Your task to perform on an android device: toggle translation in the chrome app Image 0: 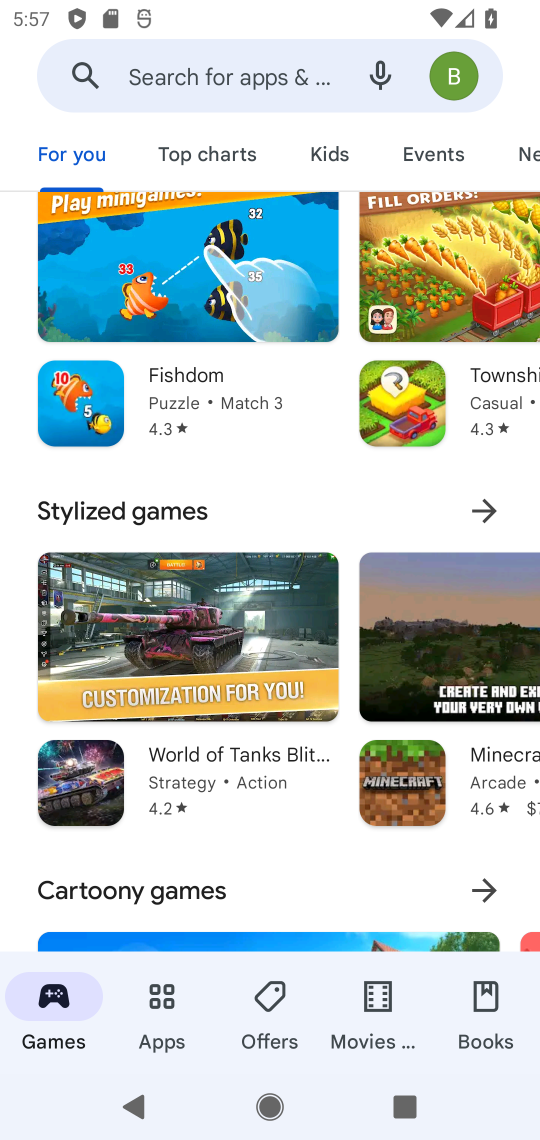
Step 0: press home button
Your task to perform on an android device: toggle translation in the chrome app Image 1: 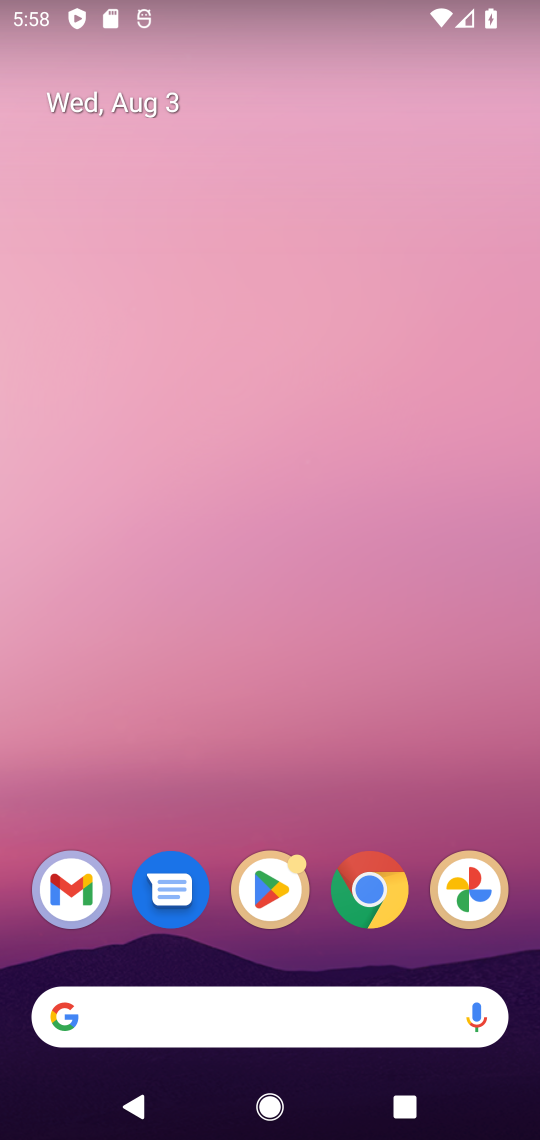
Step 1: click (388, 903)
Your task to perform on an android device: toggle translation in the chrome app Image 2: 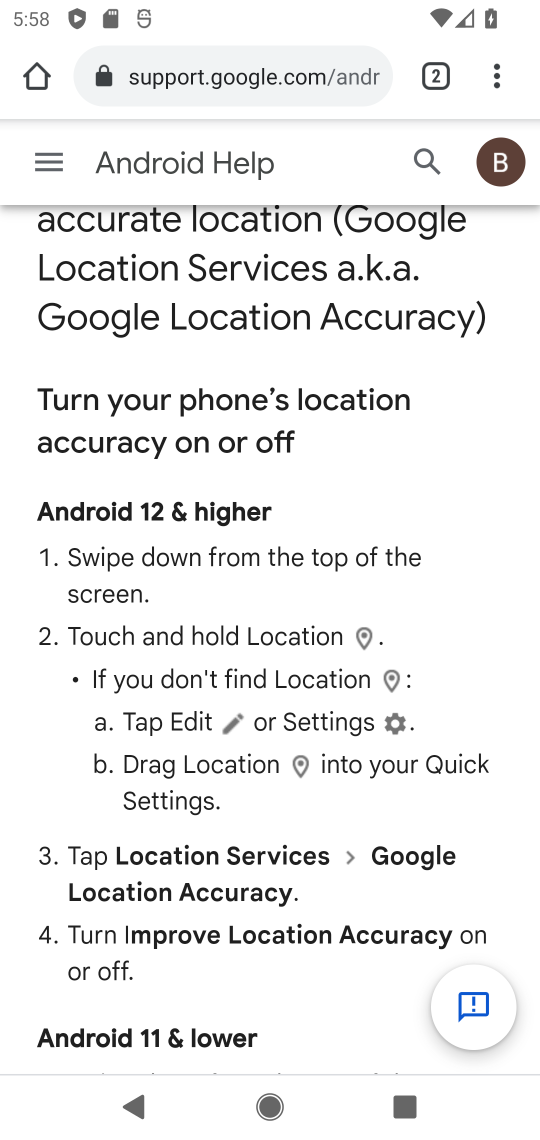
Step 2: click (500, 73)
Your task to perform on an android device: toggle translation in the chrome app Image 3: 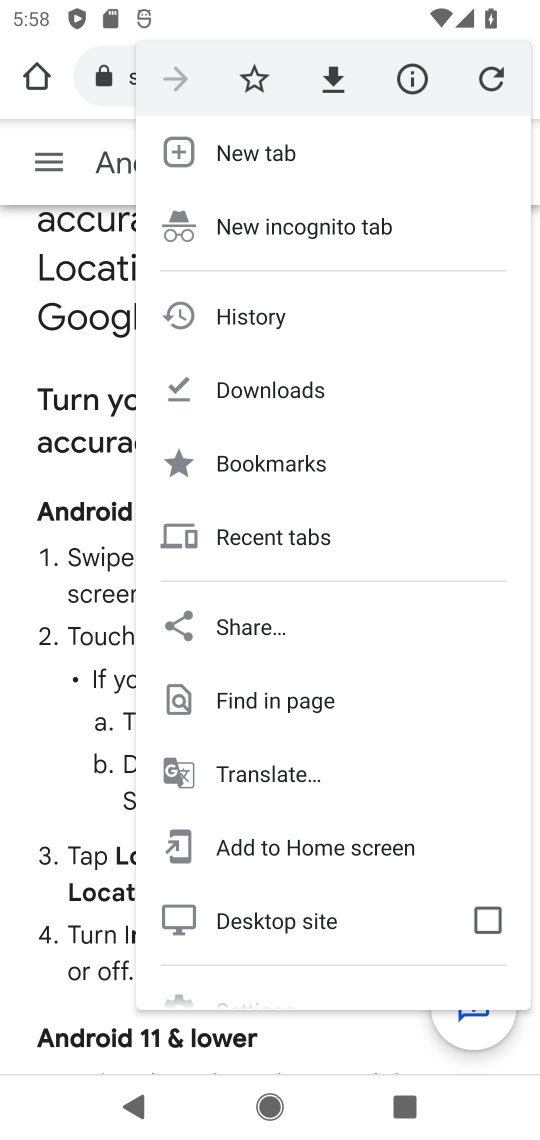
Step 3: drag from (368, 740) to (384, 376)
Your task to perform on an android device: toggle translation in the chrome app Image 4: 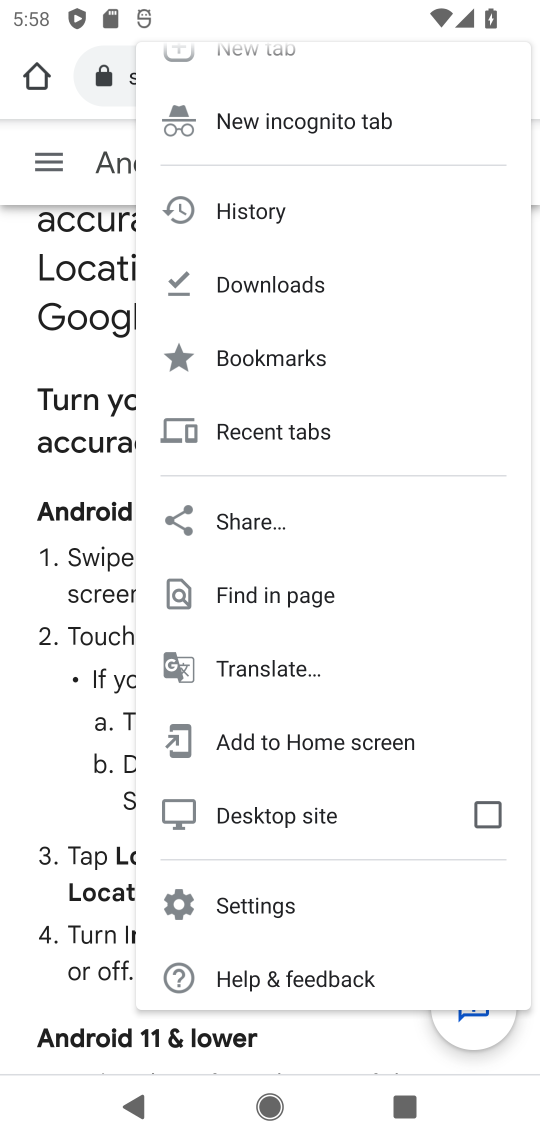
Step 4: click (249, 900)
Your task to perform on an android device: toggle translation in the chrome app Image 5: 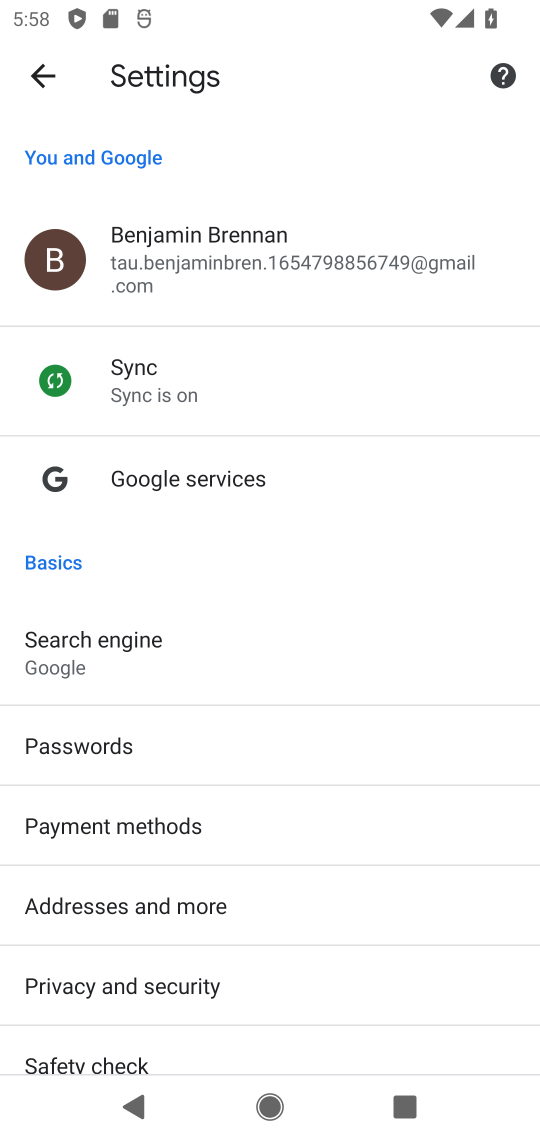
Step 5: drag from (376, 606) to (392, 178)
Your task to perform on an android device: toggle translation in the chrome app Image 6: 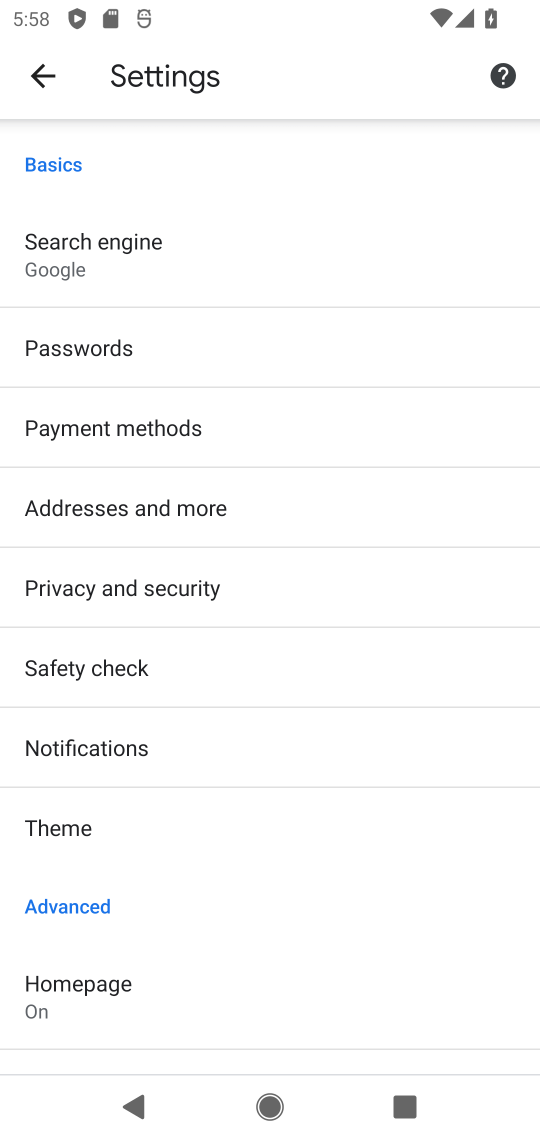
Step 6: drag from (269, 930) to (347, 265)
Your task to perform on an android device: toggle translation in the chrome app Image 7: 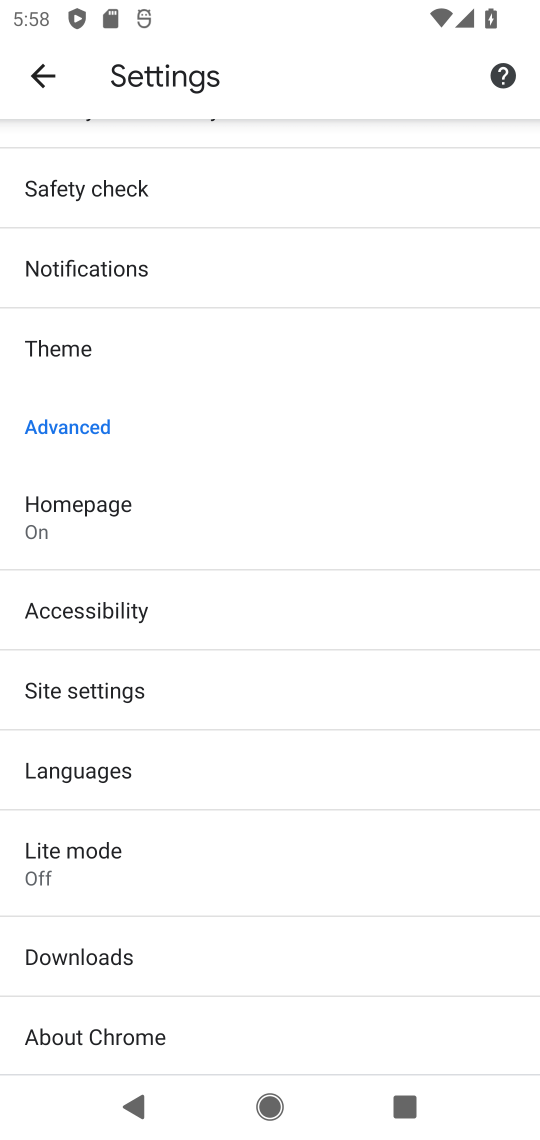
Step 7: click (96, 769)
Your task to perform on an android device: toggle translation in the chrome app Image 8: 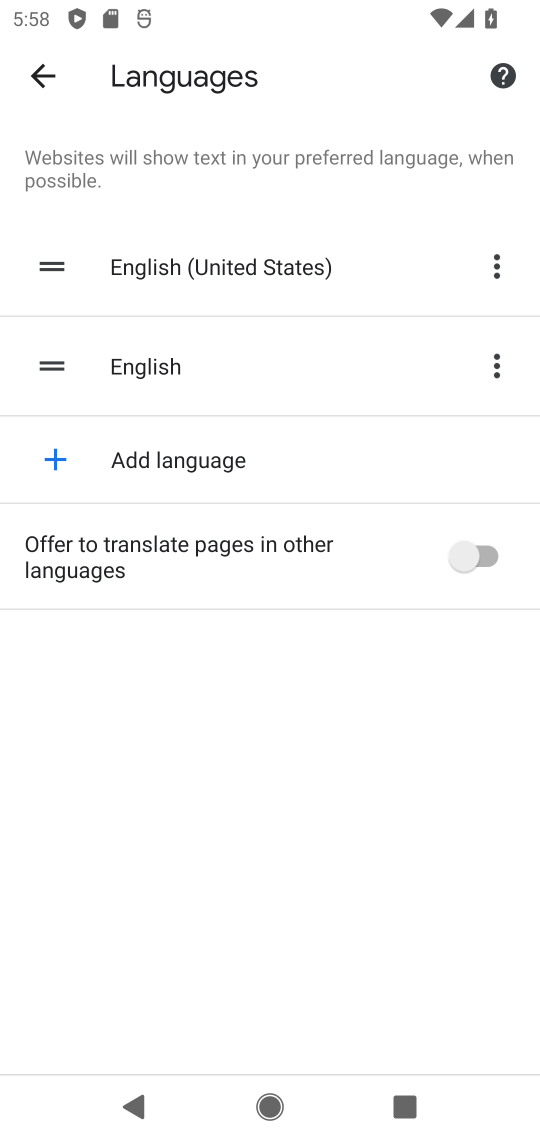
Step 8: click (472, 546)
Your task to perform on an android device: toggle translation in the chrome app Image 9: 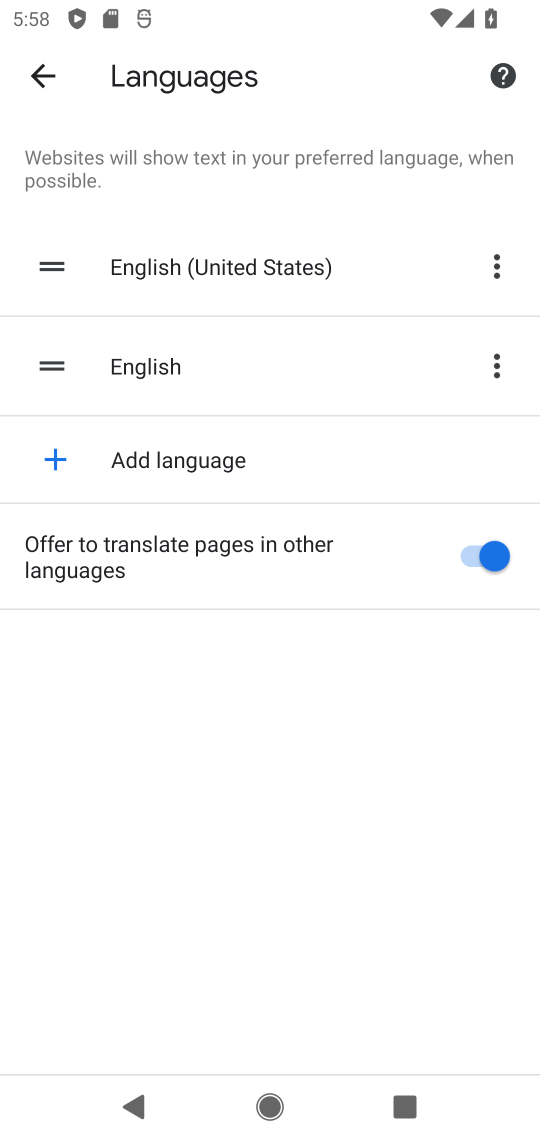
Step 9: task complete